Your task to perform on an android device: Open battery settings Image 0: 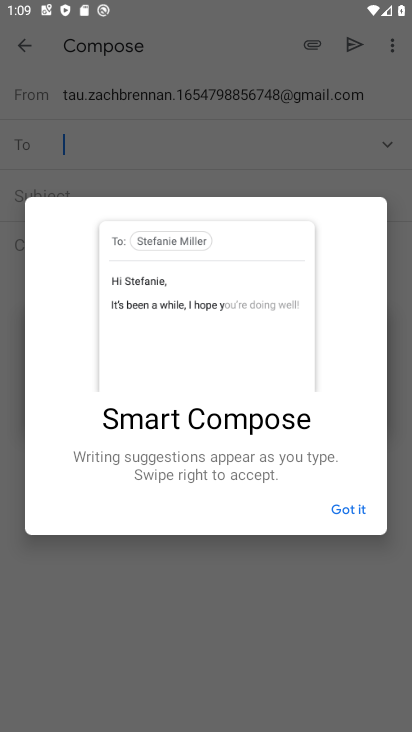
Step 0: press home button
Your task to perform on an android device: Open battery settings Image 1: 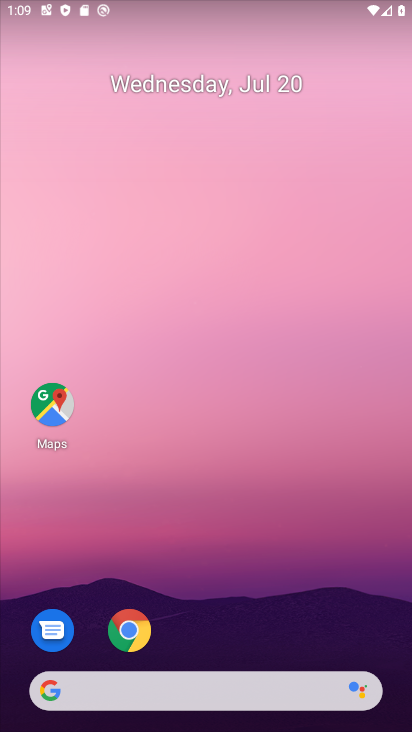
Step 1: drag from (227, 708) to (131, 175)
Your task to perform on an android device: Open battery settings Image 2: 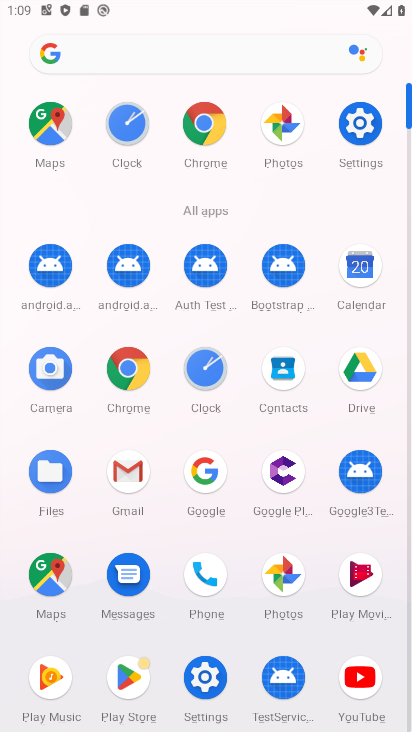
Step 2: click (361, 138)
Your task to perform on an android device: Open battery settings Image 3: 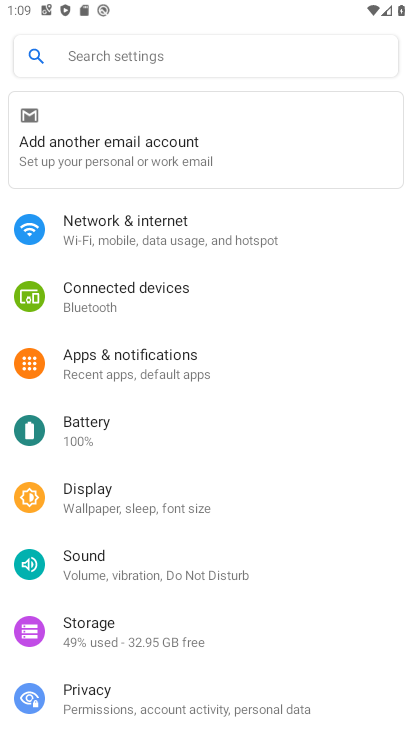
Step 3: click (101, 428)
Your task to perform on an android device: Open battery settings Image 4: 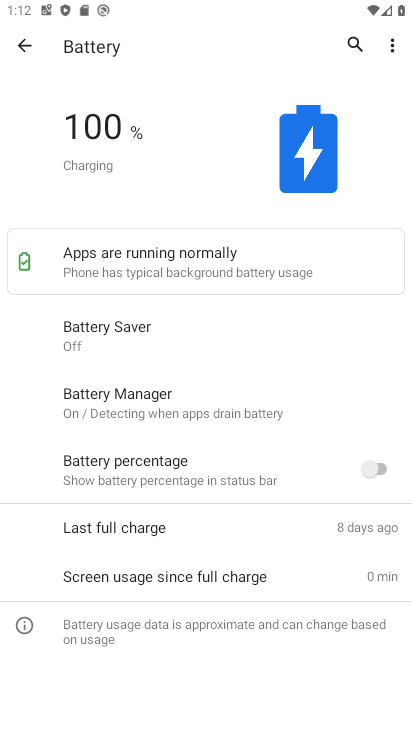
Step 4: task complete